Your task to perform on an android device: read, delete, or share a saved page in the chrome app Image 0: 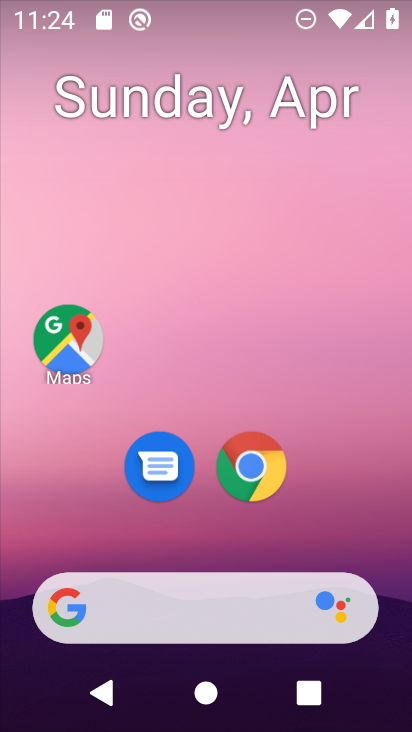
Step 0: drag from (342, 498) to (348, 96)
Your task to perform on an android device: read, delete, or share a saved page in the chrome app Image 1: 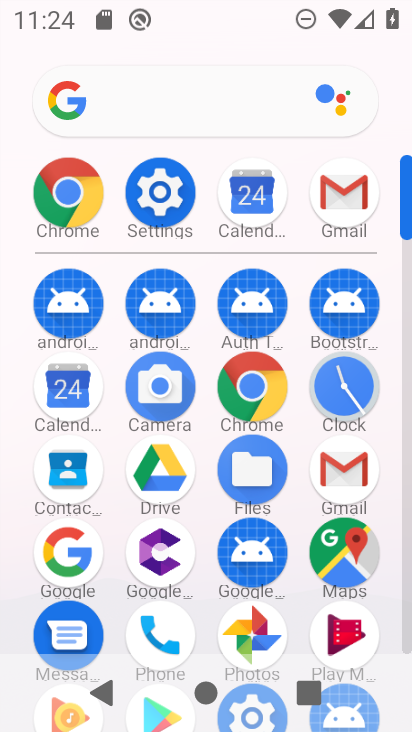
Step 1: click (219, 386)
Your task to perform on an android device: read, delete, or share a saved page in the chrome app Image 2: 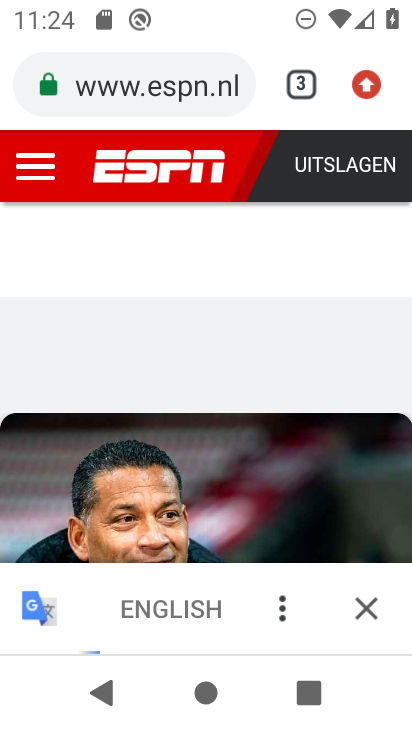
Step 2: click (369, 84)
Your task to perform on an android device: read, delete, or share a saved page in the chrome app Image 3: 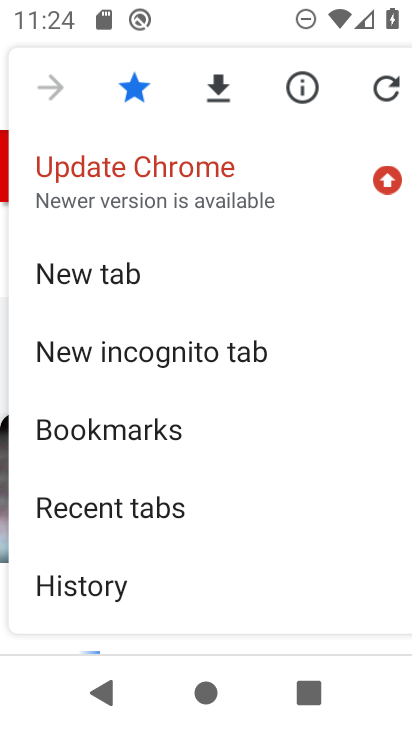
Step 3: drag from (319, 505) to (325, 368)
Your task to perform on an android device: read, delete, or share a saved page in the chrome app Image 4: 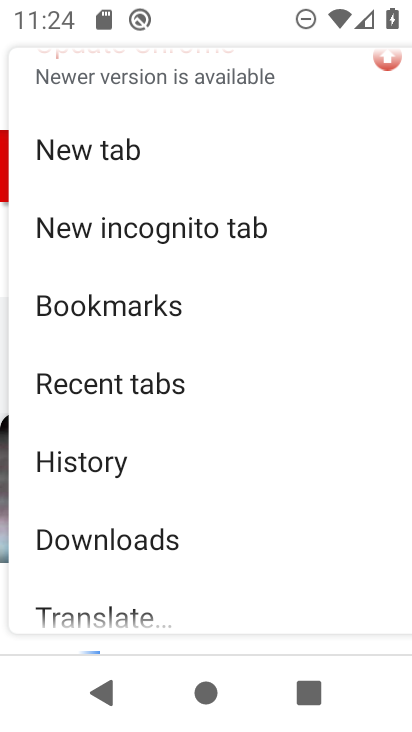
Step 4: drag from (290, 570) to (295, 397)
Your task to perform on an android device: read, delete, or share a saved page in the chrome app Image 5: 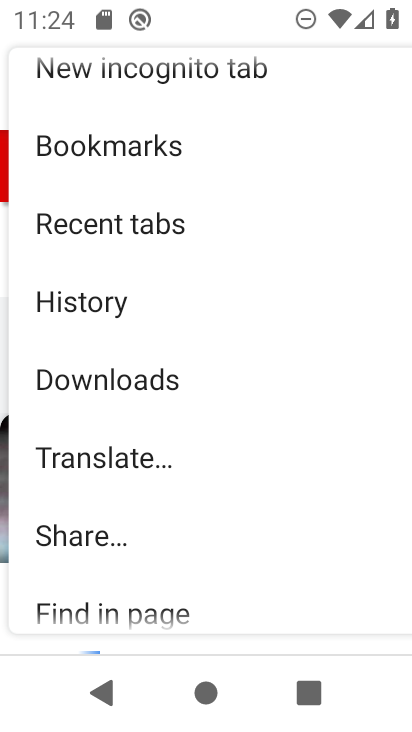
Step 5: click (145, 395)
Your task to perform on an android device: read, delete, or share a saved page in the chrome app Image 6: 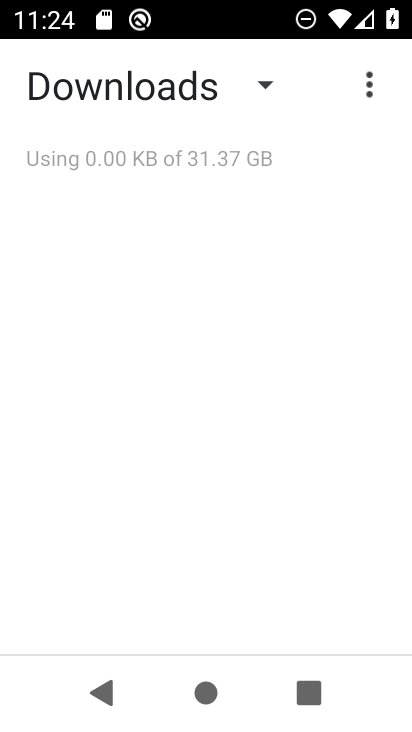
Step 6: click (267, 85)
Your task to perform on an android device: read, delete, or share a saved page in the chrome app Image 7: 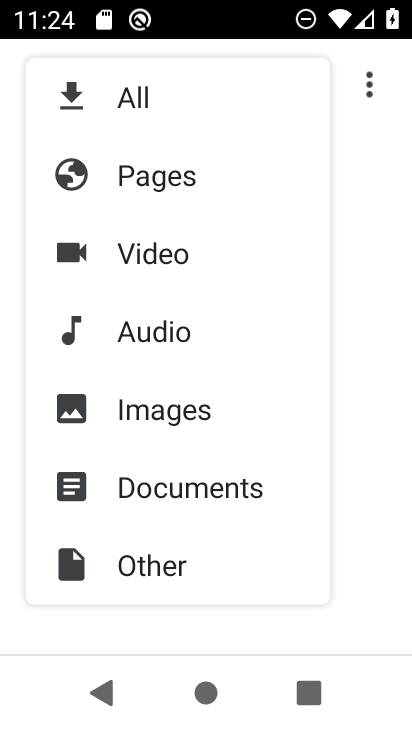
Step 7: click (183, 182)
Your task to perform on an android device: read, delete, or share a saved page in the chrome app Image 8: 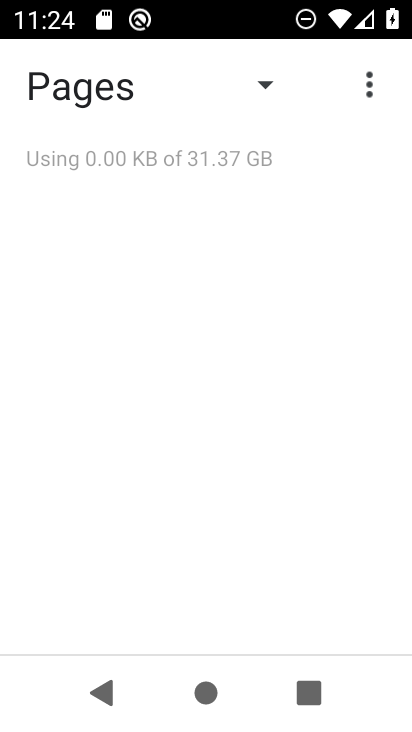
Step 8: task complete